Your task to perform on an android device: Go to calendar. Show me events next week Image 0: 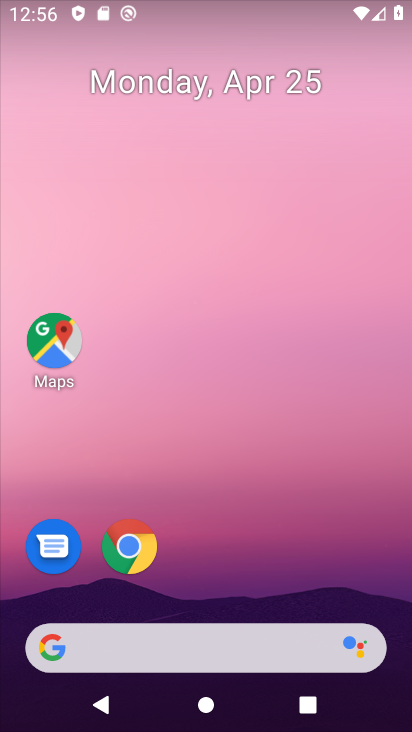
Step 0: drag from (222, 614) to (185, 10)
Your task to perform on an android device: Go to calendar. Show me events next week Image 1: 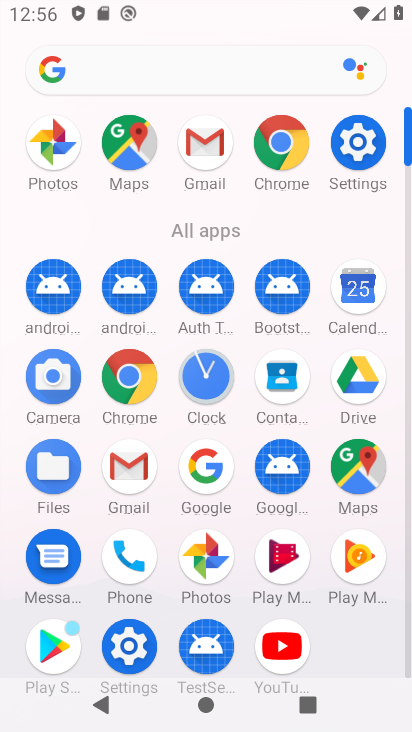
Step 1: click (349, 295)
Your task to perform on an android device: Go to calendar. Show me events next week Image 2: 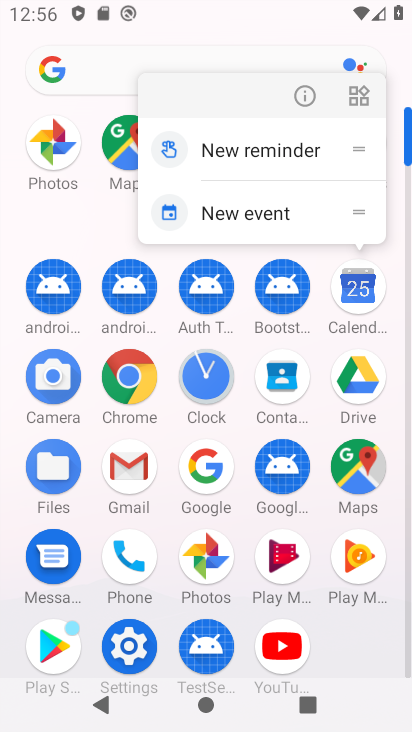
Step 2: click (367, 273)
Your task to perform on an android device: Go to calendar. Show me events next week Image 3: 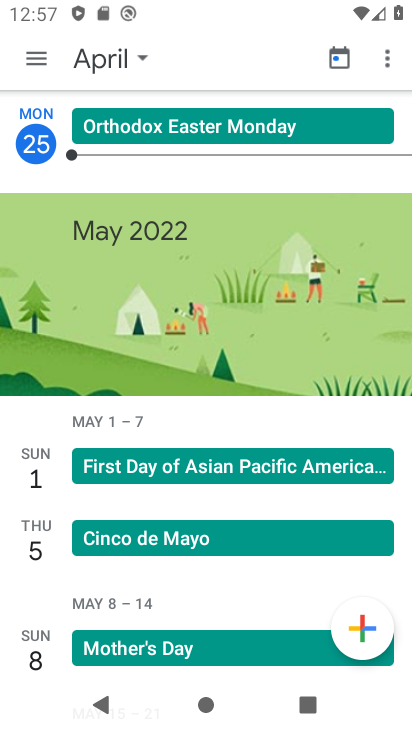
Step 3: drag from (38, 56) to (60, 328)
Your task to perform on an android device: Go to calendar. Show me events next week Image 4: 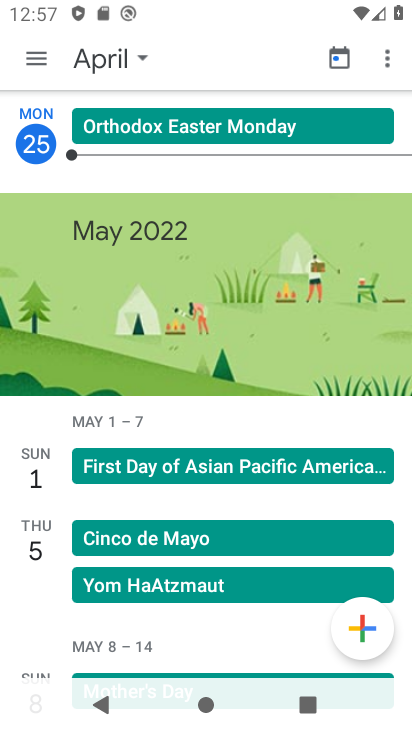
Step 4: click (49, 63)
Your task to perform on an android device: Go to calendar. Show me events next week Image 5: 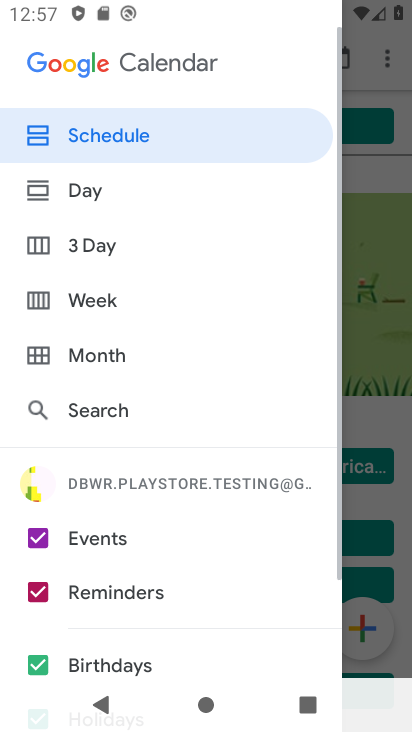
Step 5: click (79, 288)
Your task to perform on an android device: Go to calendar. Show me events next week Image 6: 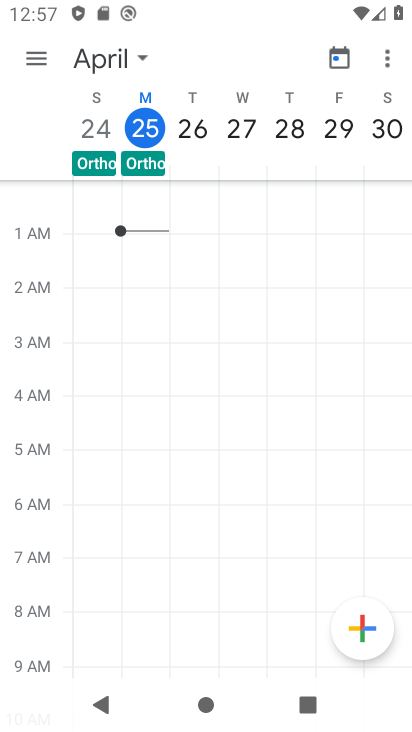
Step 6: task complete